Your task to perform on an android device: toggle airplane mode Image 0: 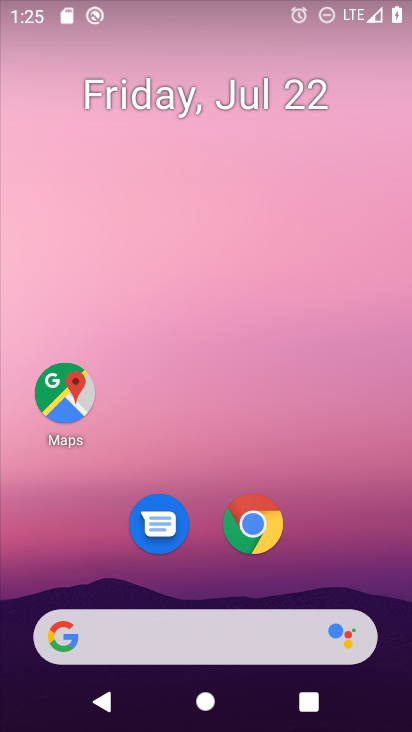
Step 0: drag from (322, 574) to (318, 98)
Your task to perform on an android device: toggle airplane mode Image 1: 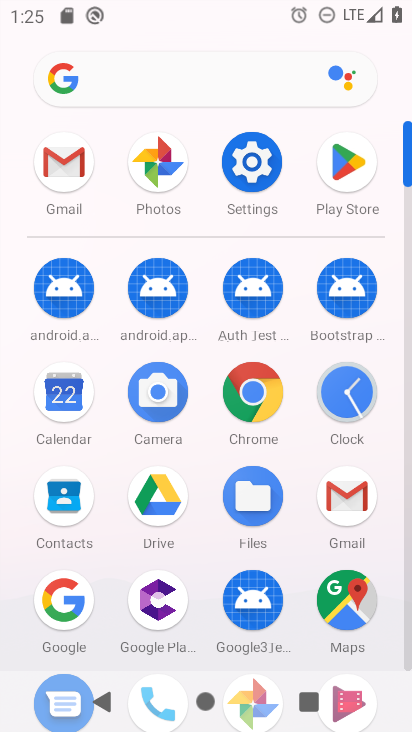
Step 1: click (248, 160)
Your task to perform on an android device: toggle airplane mode Image 2: 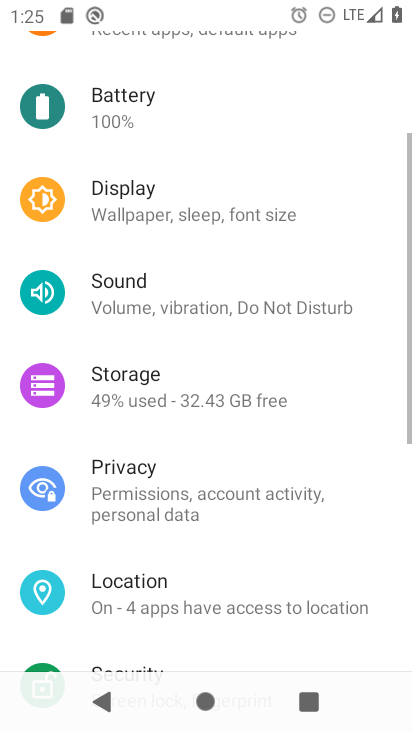
Step 2: drag from (244, 233) to (231, 579)
Your task to perform on an android device: toggle airplane mode Image 3: 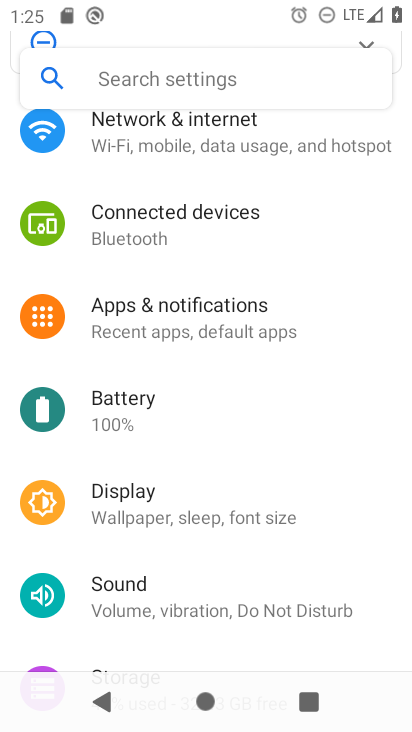
Step 3: drag from (267, 224) to (258, 483)
Your task to perform on an android device: toggle airplane mode Image 4: 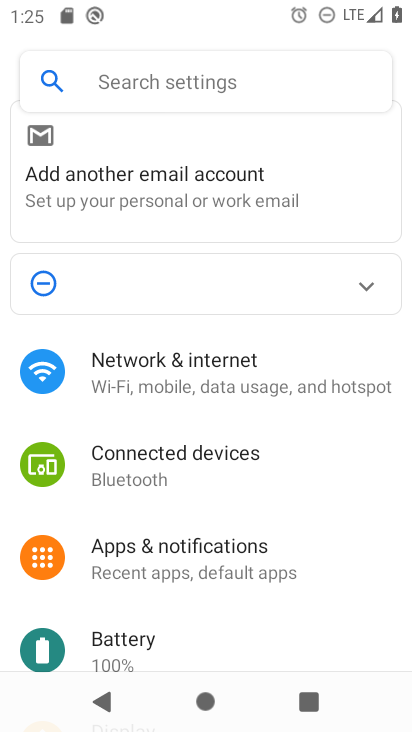
Step 4: click (260, 381)
Your task to perform on an android device: toggle airplane mode Image 5: 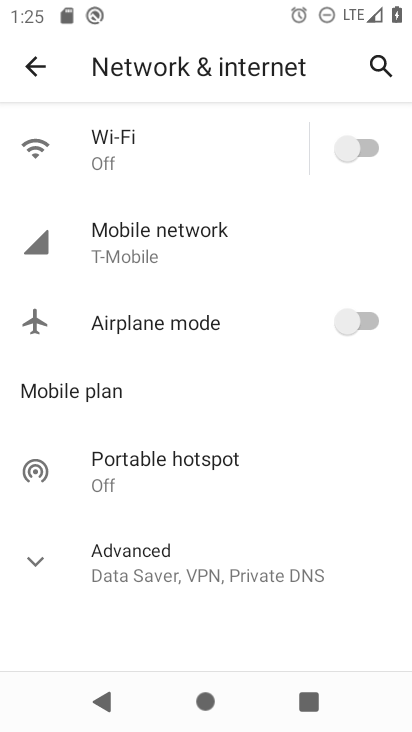
Step 5: click (349, 321)
Your task to perform on an android device: toggle airplane mode Image 6: 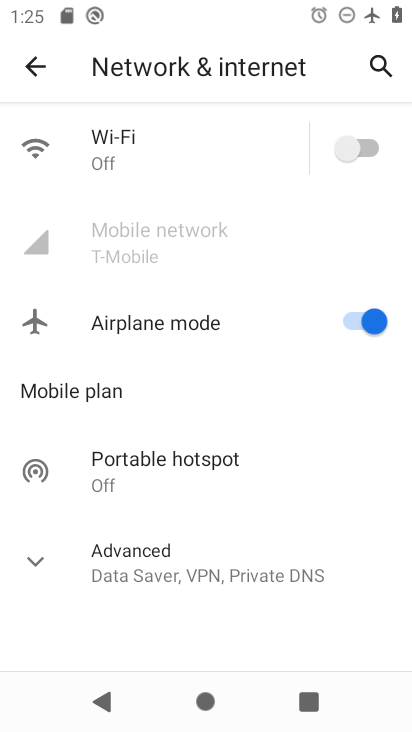
Step 6: task complete